Your task to perform on an android device: Open calendar and show me the third week of next month Image 0: 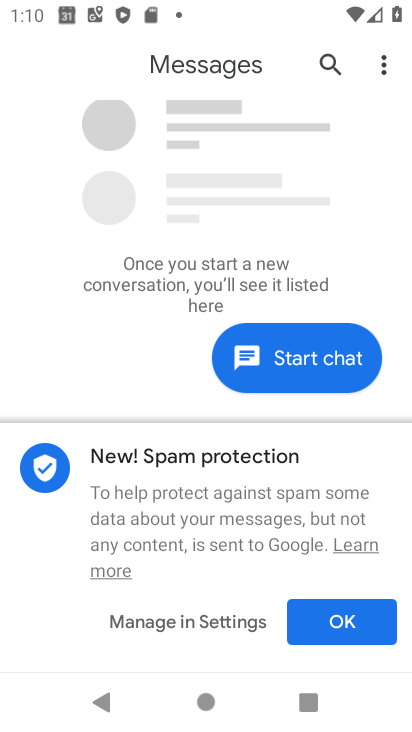
Step 0: press home button
Your task to perform on an android device: Open calendar and show me the third week of next month Image 1: 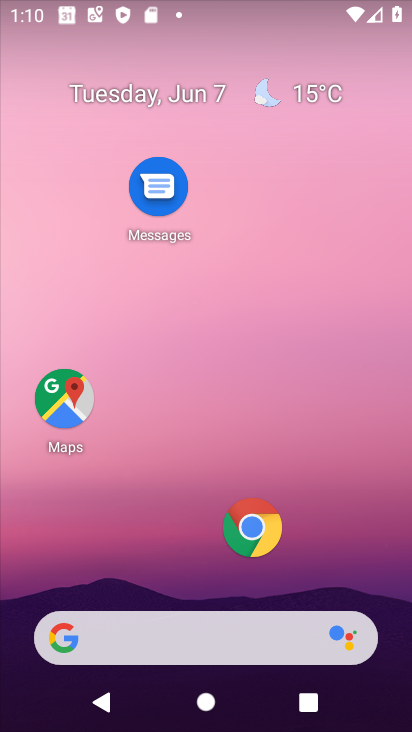
Step 1: drag from (134, 613) to (178, 291)
Your task to perform on an android device: Open calendar and show me the third week of next month Image 2: 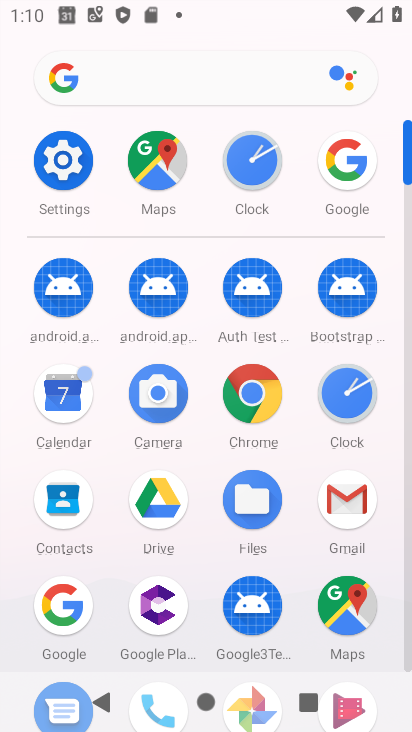
Step 2: click (66, 400)
Your task to perform on an android device: Open calendar and show me the third week of next month Image 3: 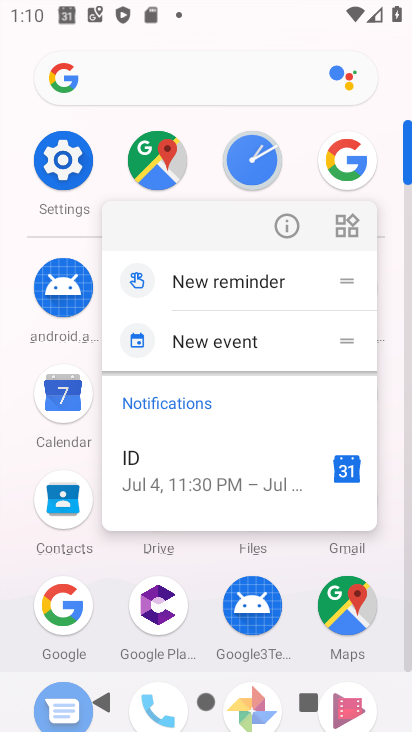
Step 3: click (66, 400)
Your task to perform on an android device: Open calendar and show me the third week of next month Image 4: 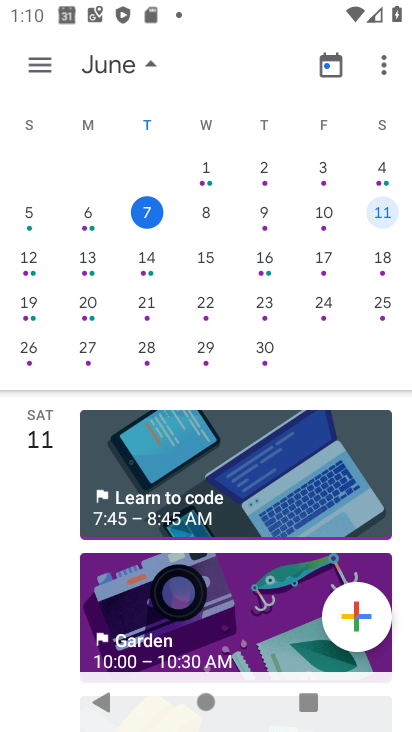
Step 4: drag from (347, 293) to (12, 235)
Your task to perform on an android device: Open calendar and show me the third week of next month Image 5: 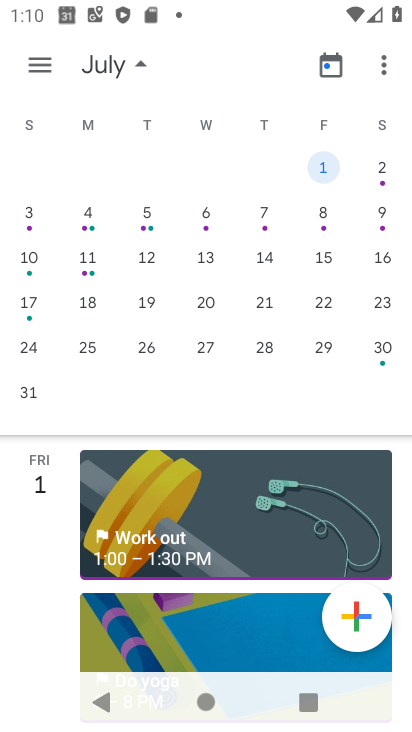
Step 5: click (33, 305)
Your task to perform on an android device: Open calendar and show me the third week of next month Image 6: 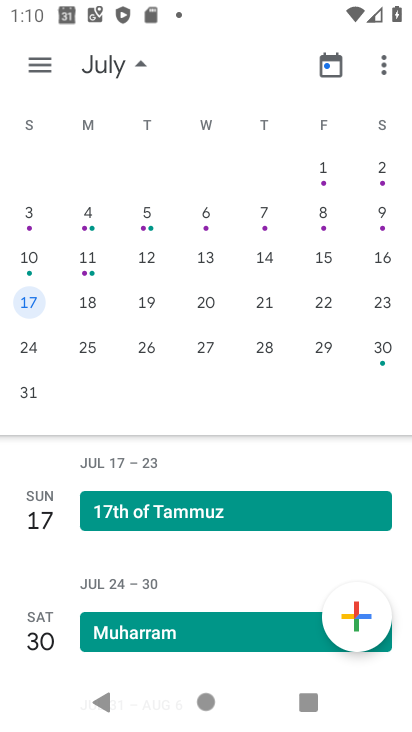
Step 6: task complete